Your task to perform on an android device: Go to ESPN.com Image 0: 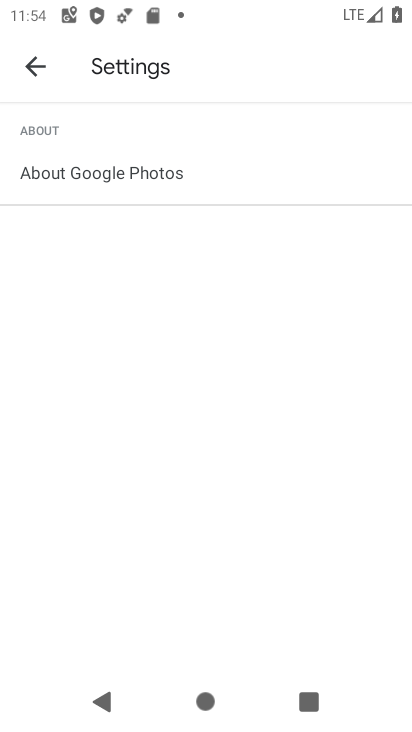
Step 0: press home button
Your task to perform on an android device: Go to ESPN.com Image 1: 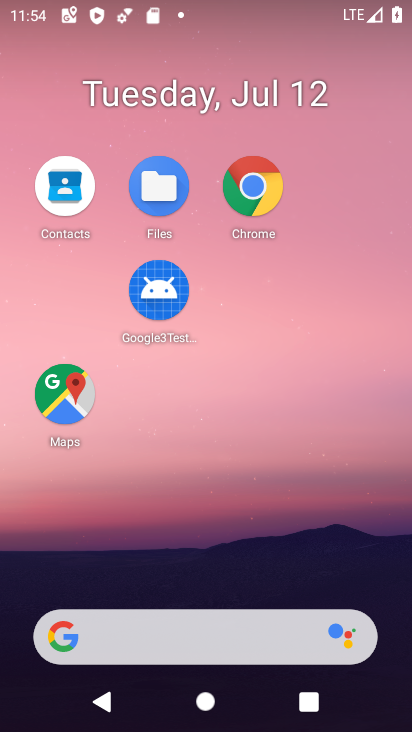
Step 1: drag from (264, 601) to (129, 227)
Your task to perform on an android device: Go to ESPN.com Image 2: 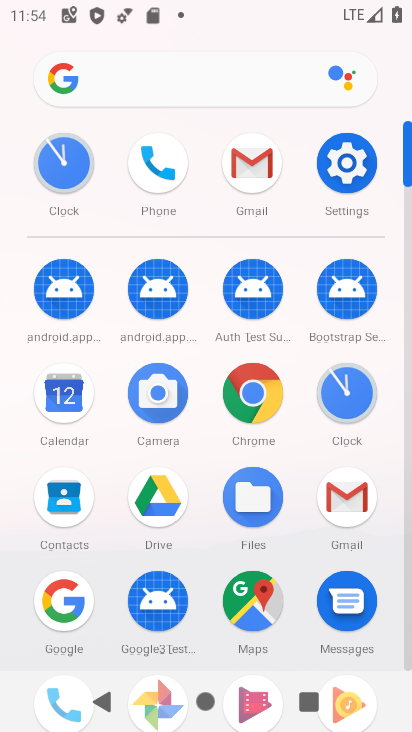
Step 2: click (256, 374)
Your task to perform on an android device: Go to ESPN.com Image 3: 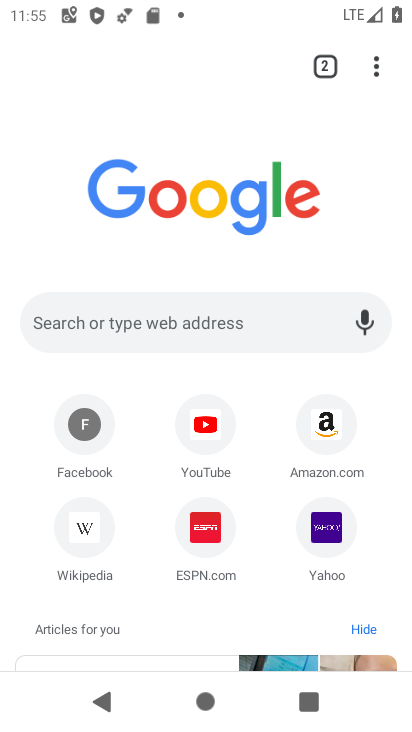
Step 3: click (208, 522)
Your task to perform on an android device: Go to ESPN.com Image 4: 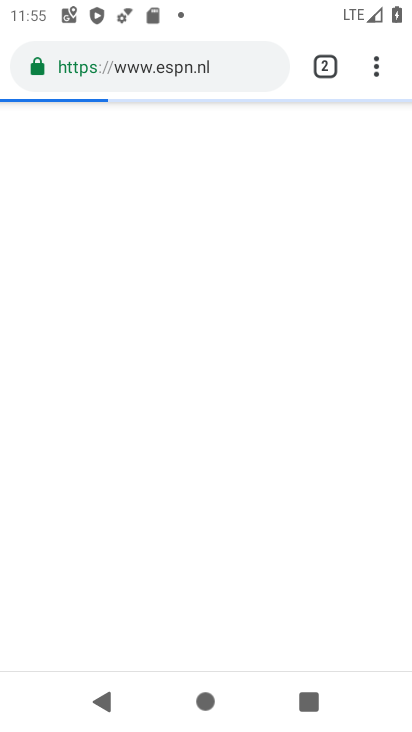
Step 4: task complete